Your task to perform on an android device: Open the web browser Image 0: 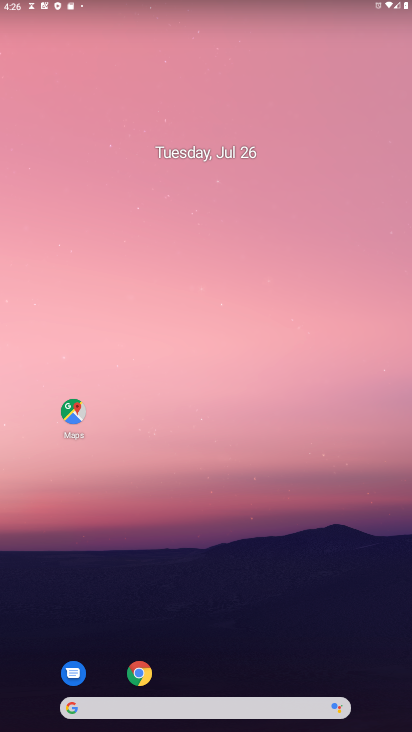
Step 0: click (141, 672)
Your task to perform on an android device: Open the web browser Image 1: 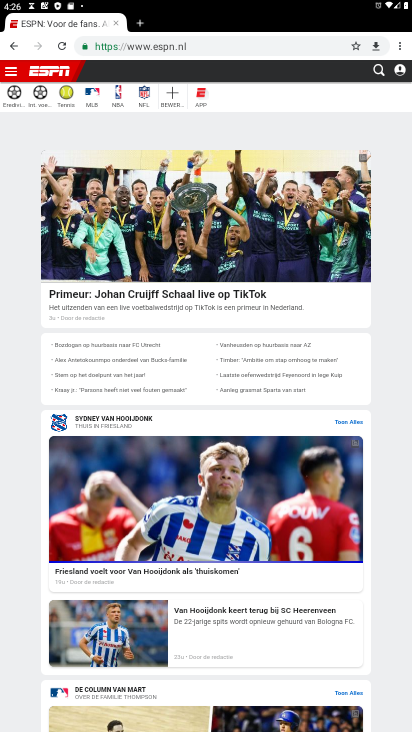
Step 1: task complete